Your task to perform on an android device: Go to Wikipedia Image 0: 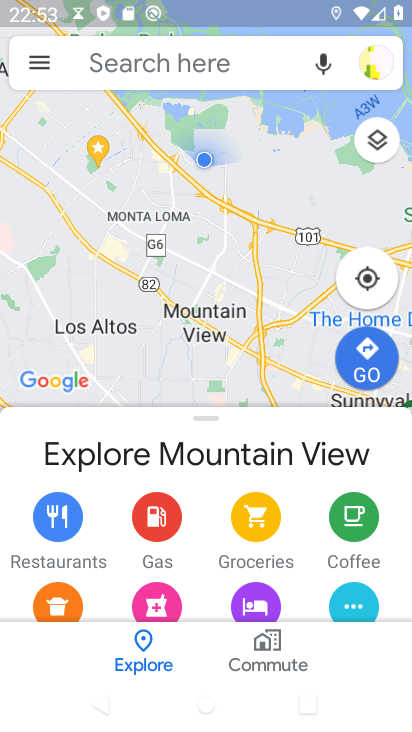
Step 0: press home button
Your task to perform on an android device: Go to Wikipedia Image 1: 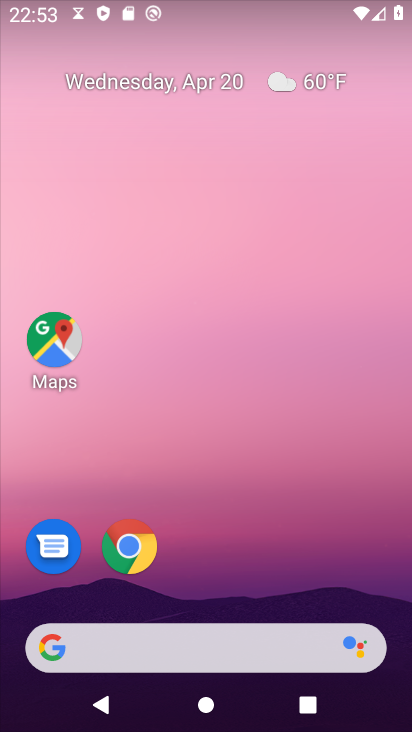
Step 1: click (139, 552)
Your task to perform on an android device: Go to Wikipedia Image 2: 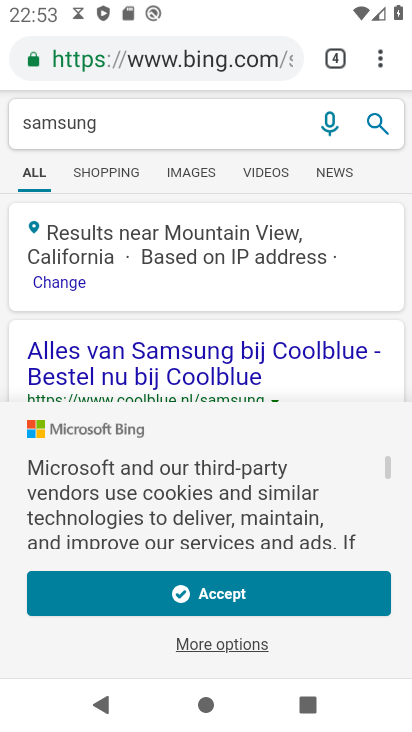
Step 2: click (330, 57)
Your task to perform on an android device: Go to Wikipedia Image 3: 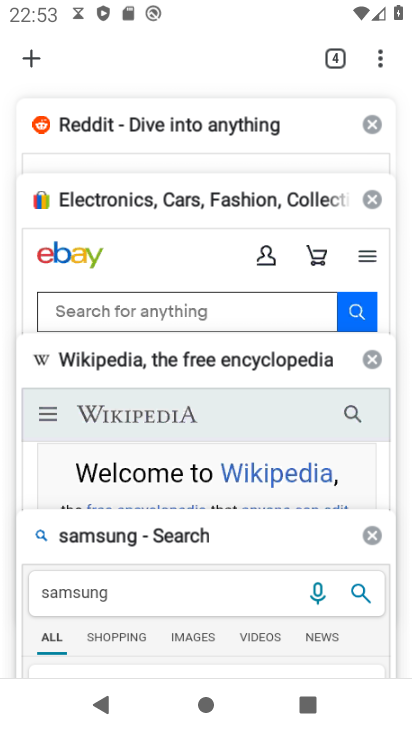
Step 3: click (28, 65)
Your task to perform on an android device: Go to Wikipedia Image 4: 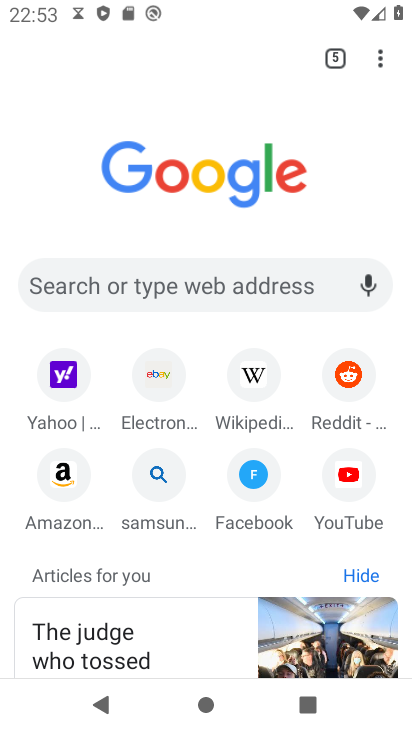
Step 4: click (254, 376)
Your task to perform on an android device: Go to Wikipedia Image 5: 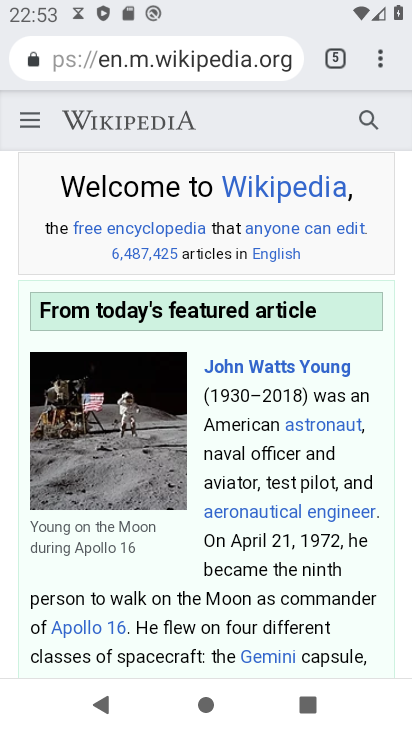
Step 5: task complete